Your task to perform on an android device: What's the weather today? Image 0: 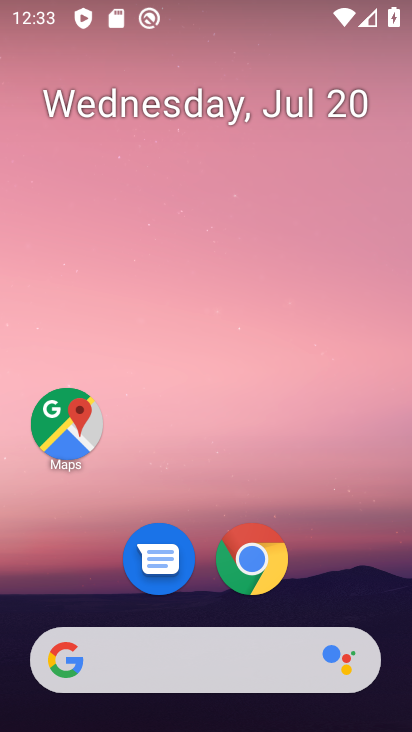
Step 0: press home button
Your task to perform on an android device: What's the weather today? Image 1: 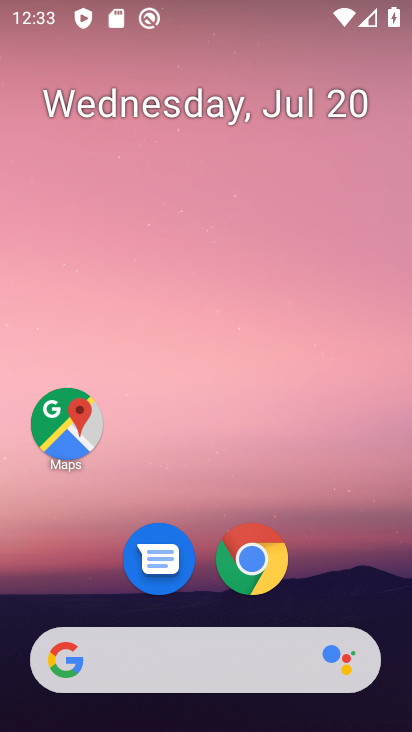
Step 1: click (222, 667)
Your task to perform on an android device: What's the weather today? Image 2: 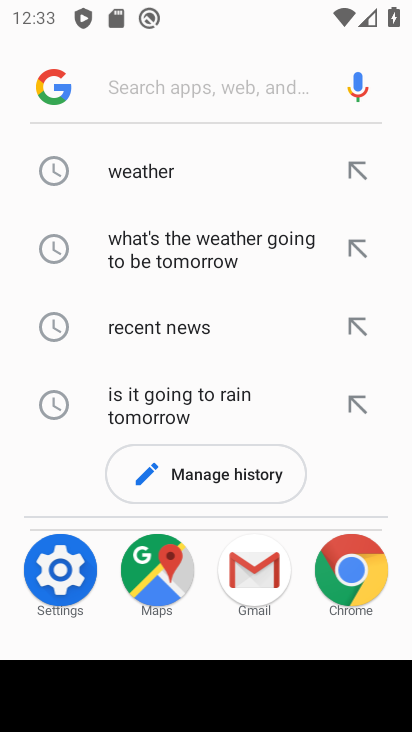
Step 2: click (195, 177)
Your task to perform on an android device: What's the weather today? Image 3: 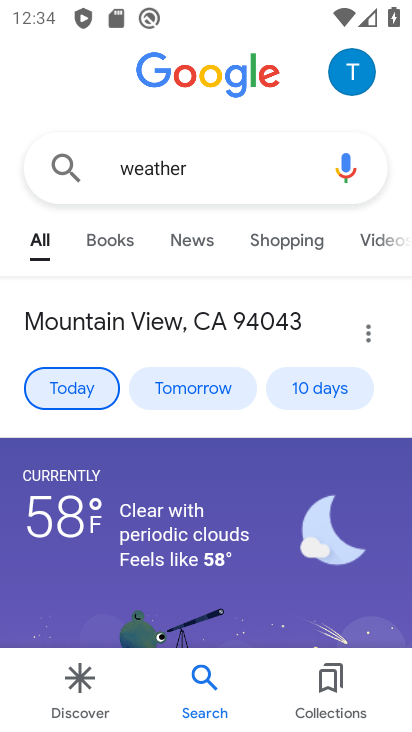
Step 3: task complete